Your task to perform on an android device: toggle airplane mode Image 0: 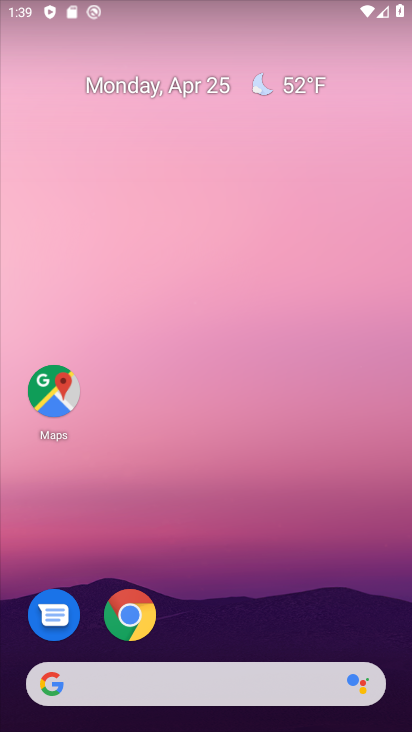
Step 0: drag from (211, 536) to (227, 48)
Your task to perform on an android device: toggle airplane mode Image 1: 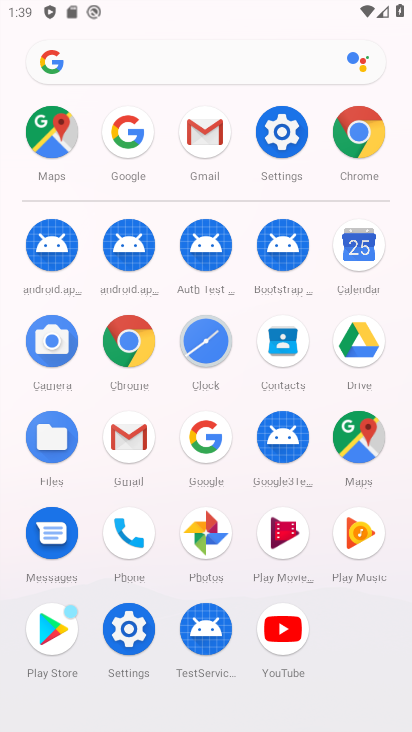
Step 1: click (280, 130)
Your task to perform on an android device: toggle airplane mode Image 2: 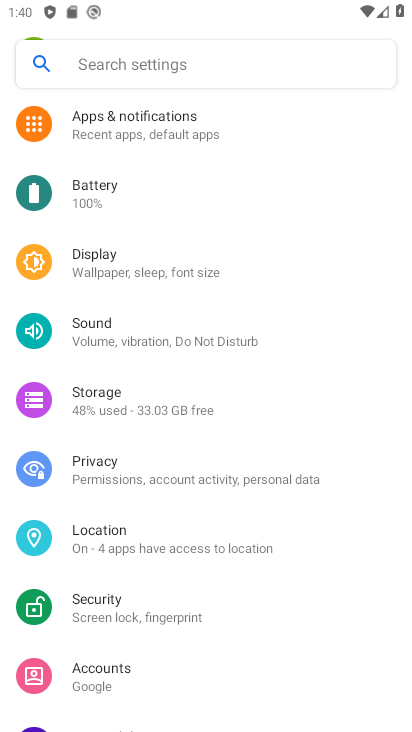
Step 2: drag from (217, 184) to (195, 315)
Your task to perform on an android device: toggle airplane mode Image 3: 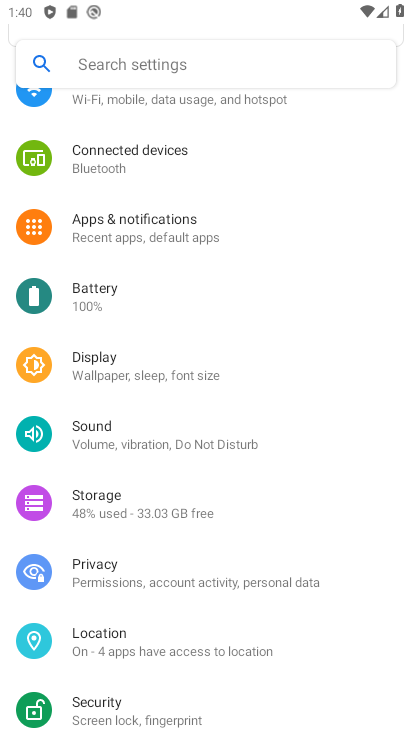
Step 3: drag from (204, 190) to (202, 294)
Your task to perform on an android device: toggle airplane mode Image 4: 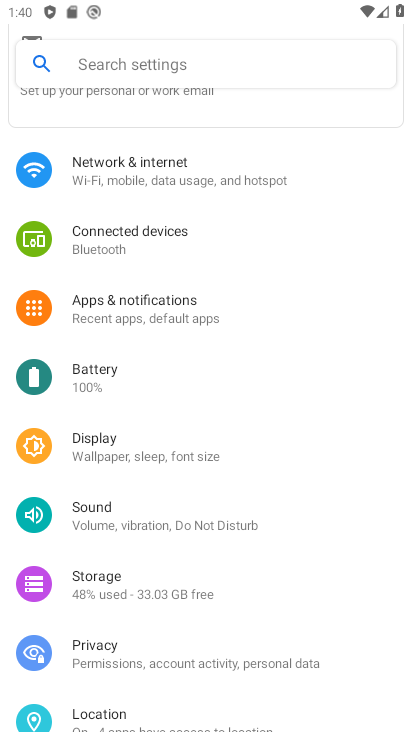
Step 4: click (157, 166)
Your task to perform on an android device: toggle airplane mode Image 5: 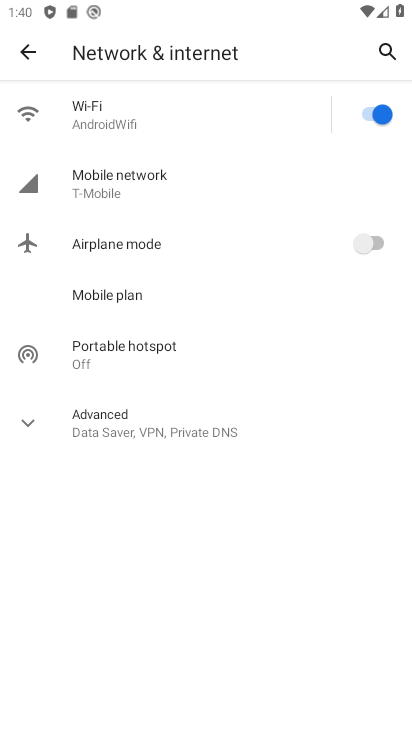
Step 5: click (365, 250)
Your task to perform on an android device: toggle airplane mode Image 6: 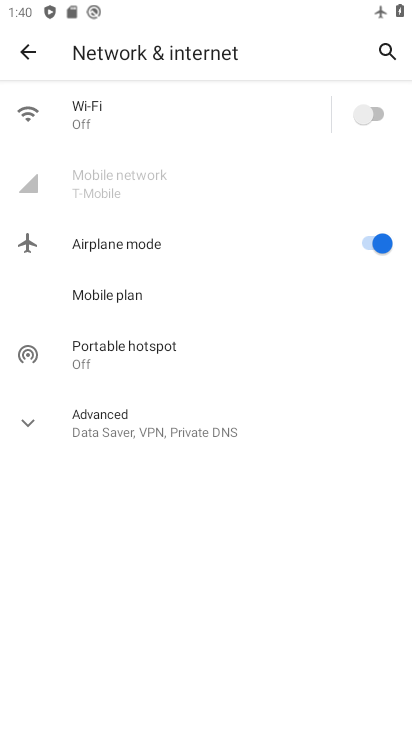
Step 6: task complete